Your task to perform on an android device: What's the weather going to be this weekend? Image 0: 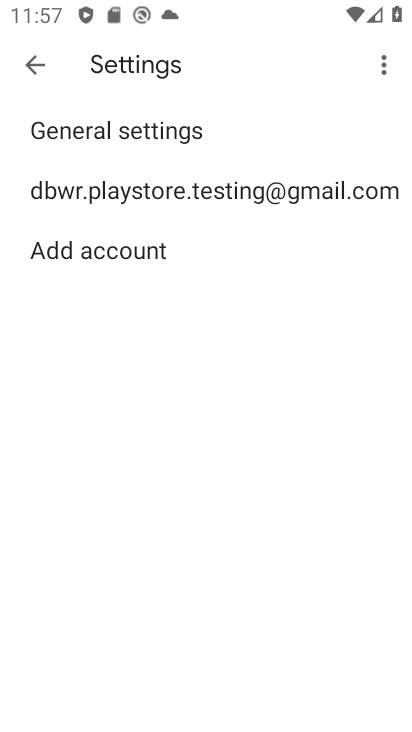
Step 0: press home button
Your task to perform on an android device: What's the weather going to be this weekend? Image 1: 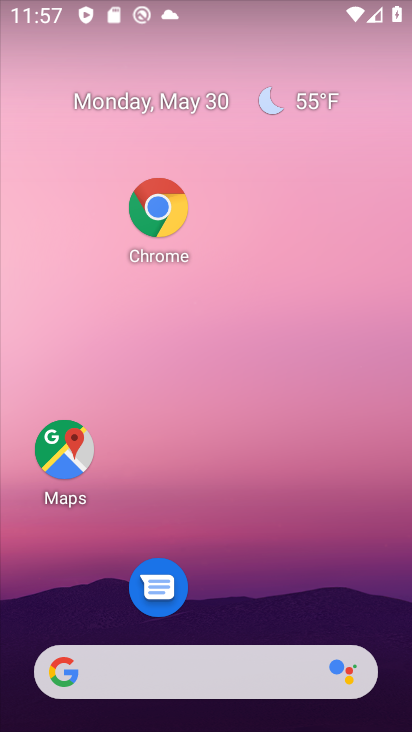
Step 1: click (159, 215)
Your task to perform on an android device: What's the weather going to be this weekend? Image 2: 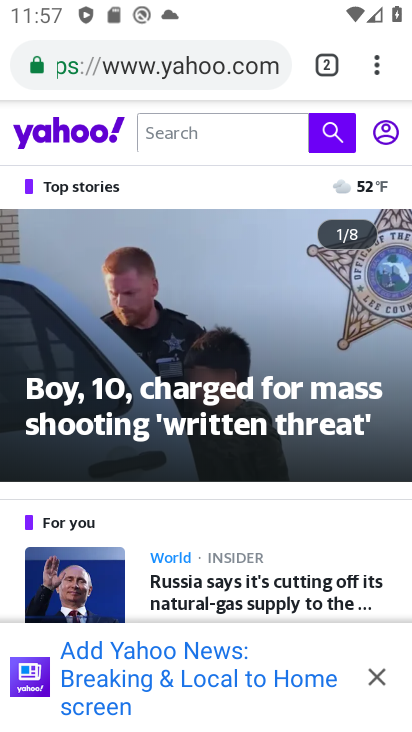
Step 2: click (333, 68)
Your task to perform on an android device: What's the weather going to be this weekend? Image 3: 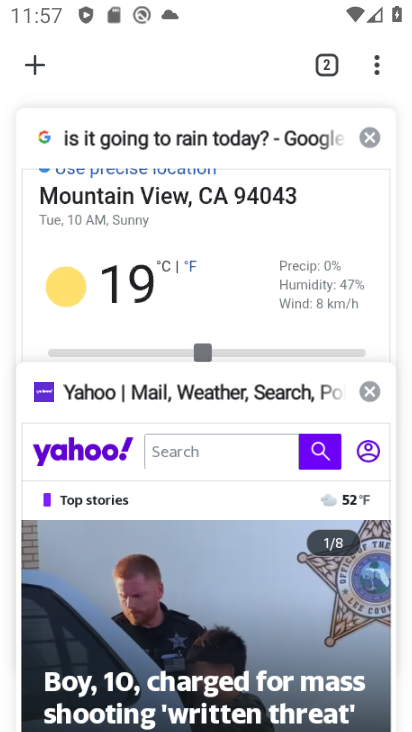
Step 3: click (46, 61)
Your task to perform on an android device: What's the weather going to be this weekend? Image 4: 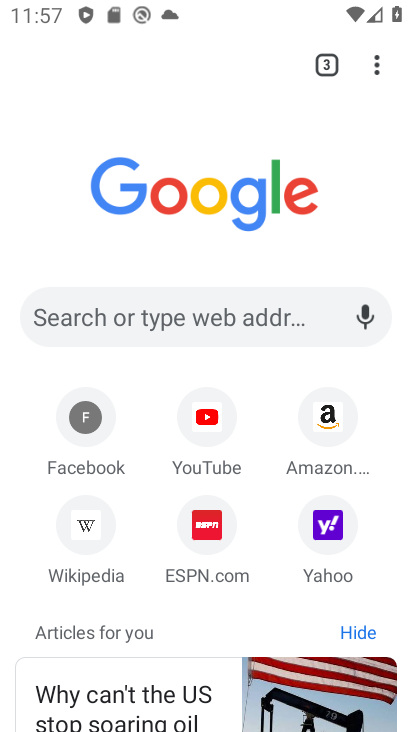
Step 4: click (84, 305)
Your task to perform on an android device: What's the weather going to be this weekend? Image 5: 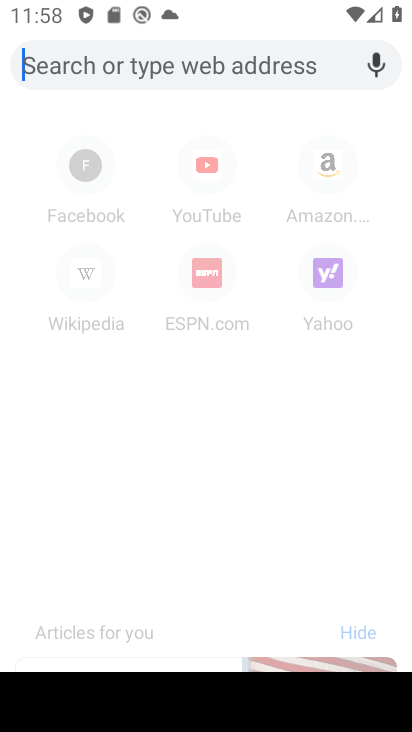
Step 5: type "What's the weather going to be this weekend?"
Your task to perform on an android device: What's the weather going to be this weekend? Image 6: 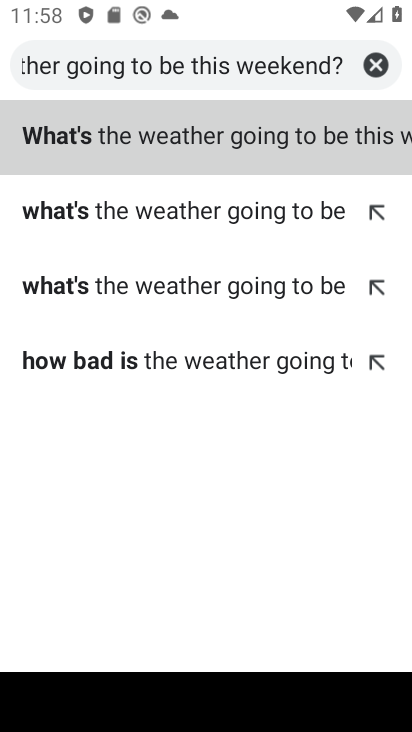
Step 6: click (202, 133)
Your task to perform on an android device: What's the weather going to be this weekend? Image 7: 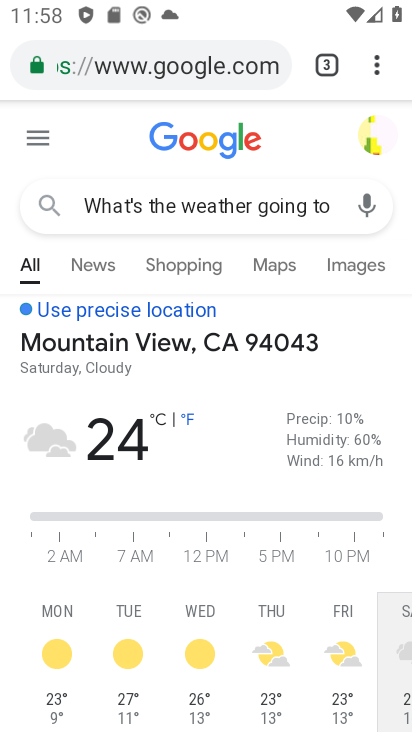
Step 7: drag from (267, 641) to (76, 628)
Your task to perform on an android device: What's the weather going to be this weekend? Image 8: 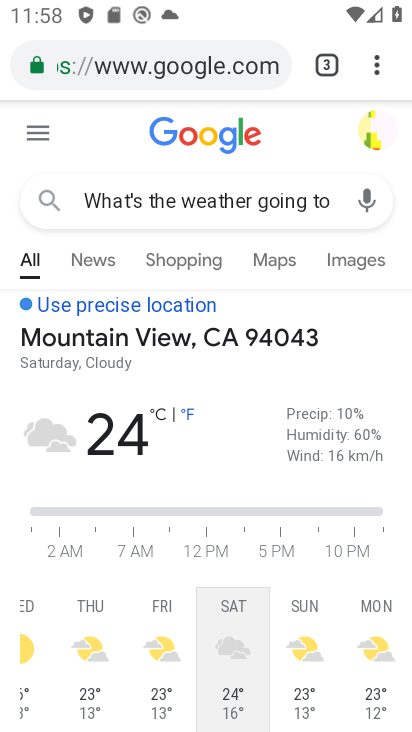
Step 8: drag from (188, 682) to (186, 567)
Your task to perform on an android device: What's the weather going to be this weekend? Image 9: 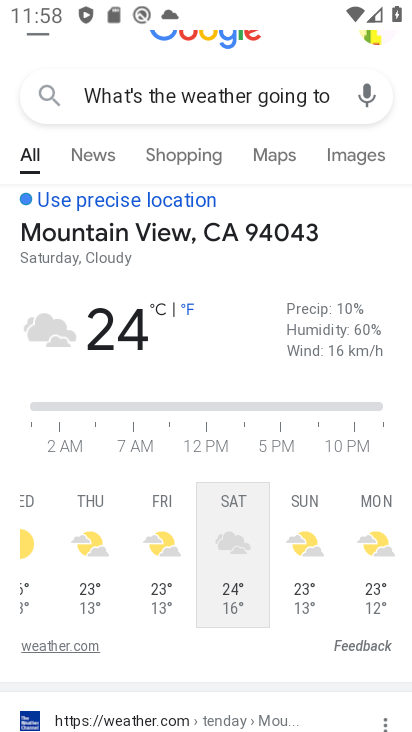
Step 9: click (313, 553)
Your task to perform on an android device: What's the weather going to be this weekend? Image 10: 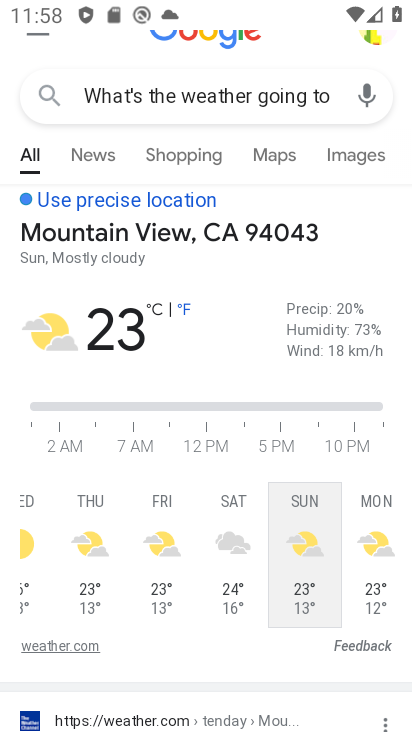
Step 10: click (253, 546)
Your task to perform on an android device: What's the weather going to be this weekend? Image 11: 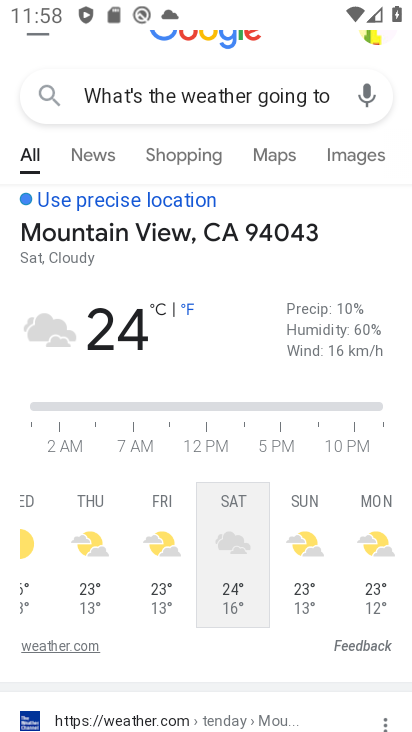
Step 11: task complete